Your task to perform on an android device: turn on sleep mode Image 0: 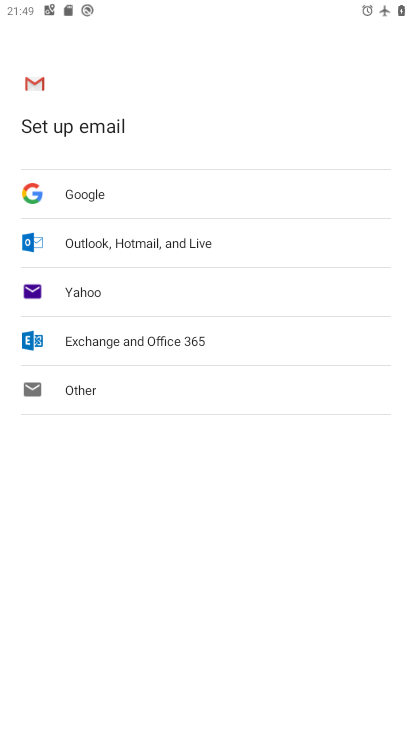
Step 0: press home button
Your task to perform on an android device: turn on sleep mode Image 1: 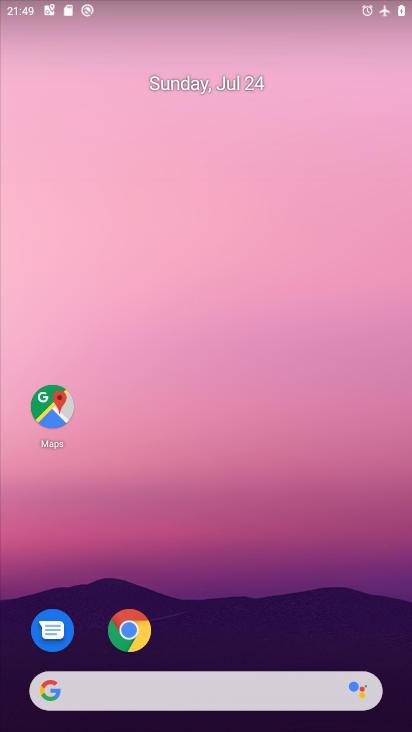
Step 1: drag from (213, 650) to (246, 156)
Your task to perform on an android device: turn on sleep mode Image 2: 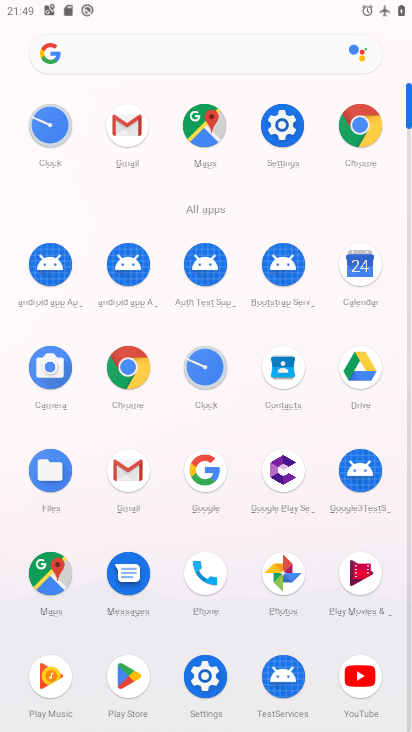
Step 2: click (279, 138)
Your task to perform on an android device: turn on sleep mode Image 3: 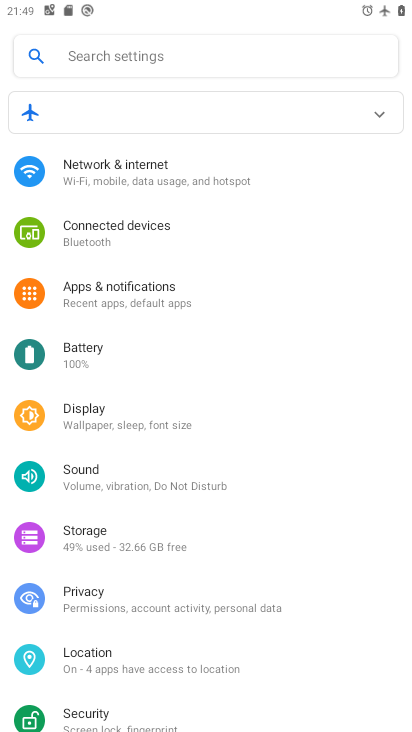
Step 3: task complete